Your task to perform on an android device: open device folders in google photos Image 0: 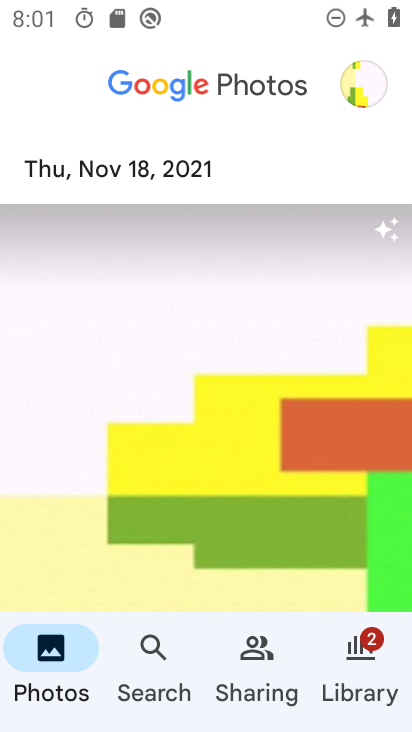
Step 0: press home button
Your task to perform on an android device: open device folders in google photos Image 1: 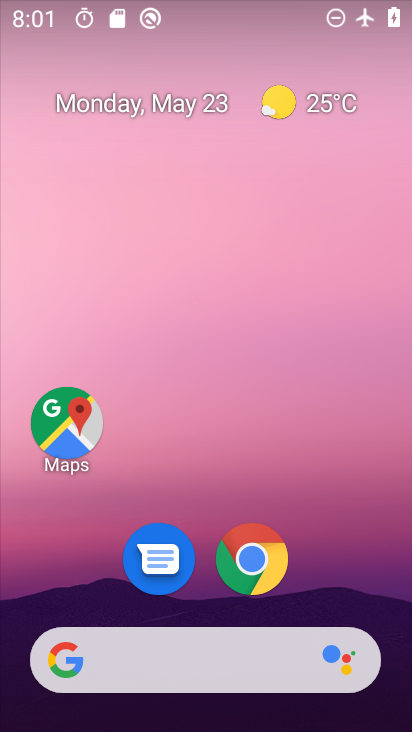
Step 1: drag from (361, 288) to (315, 78)
Your task to perform on an android device: open device folders in google photos Image 2: 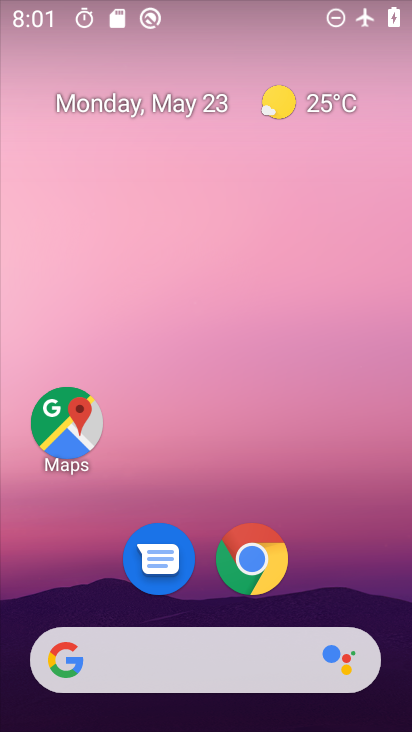
Step 2: drag from (392, 648) to (309, 34)
Your task to perform on an android device: open device folders in google photos Image 3: 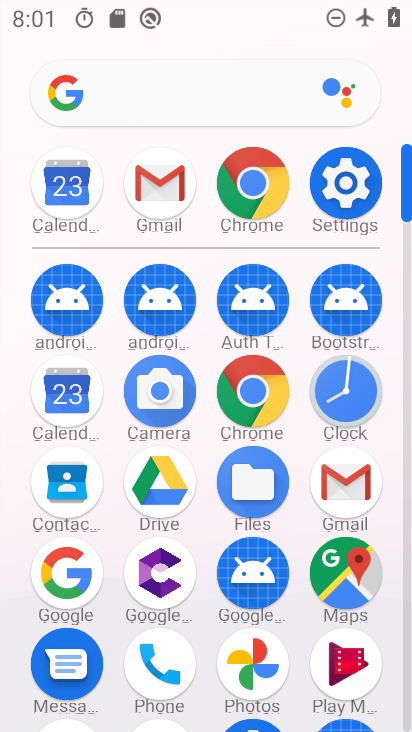
Step 3: click (248, 654)
Your task to perform on an android device: open device folders in google photos Image 4: 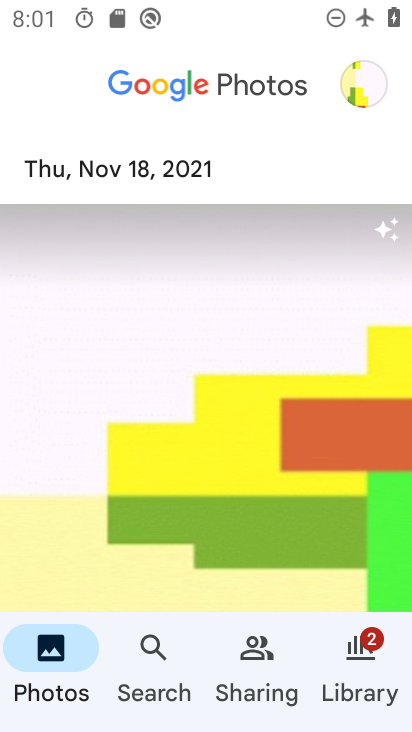
Step 4: task complete